Your task to perform on an android device: empty trash in the gmail app Image 0: 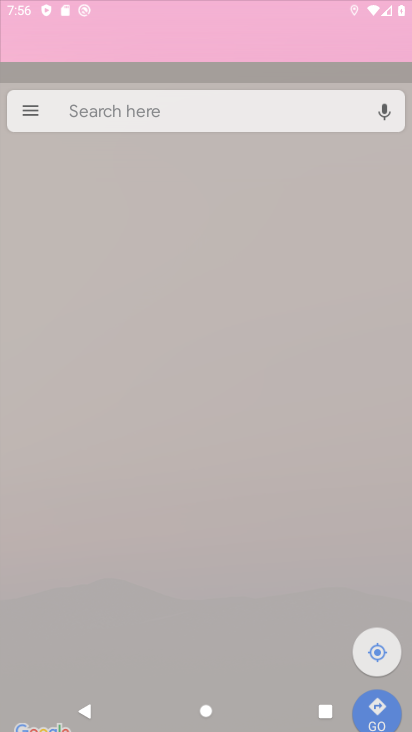
Step 0: click (77, 122)
Your task to perform on an android device: empty trash in the gmail app Image 1: 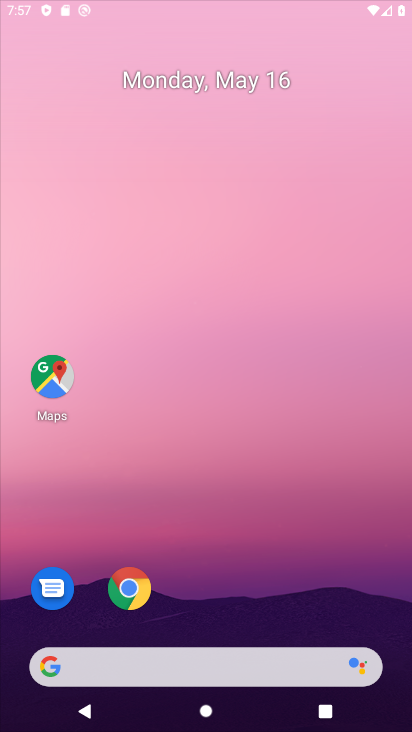
Step 1: drag from (261, 646) to (89, 38)
Your task to perform on an android device: empty trash in the gmail app Image 2: 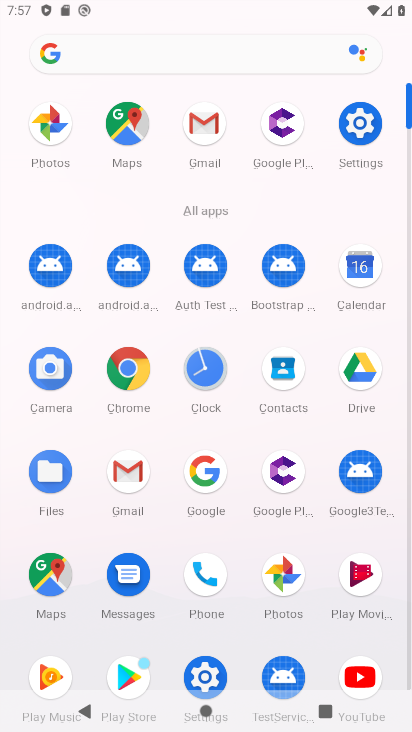
Step 2: click (125, 469)
Your task to perform on an android device: empty trash in the gmail app Image 3: 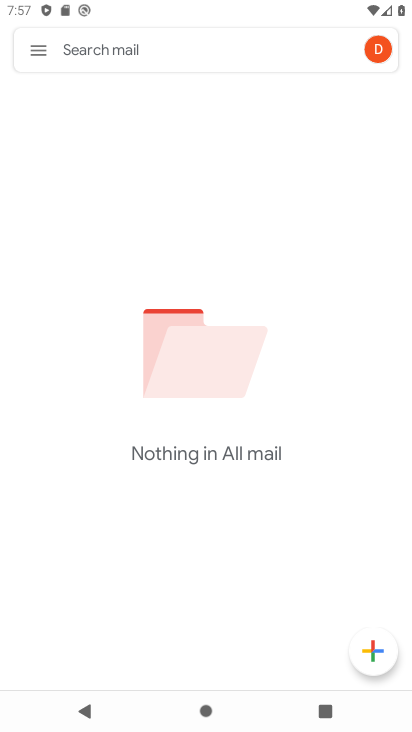
Step 3: click (38, 41)
Your task to perform on an android device: empty trash in the gmail app Image 4: 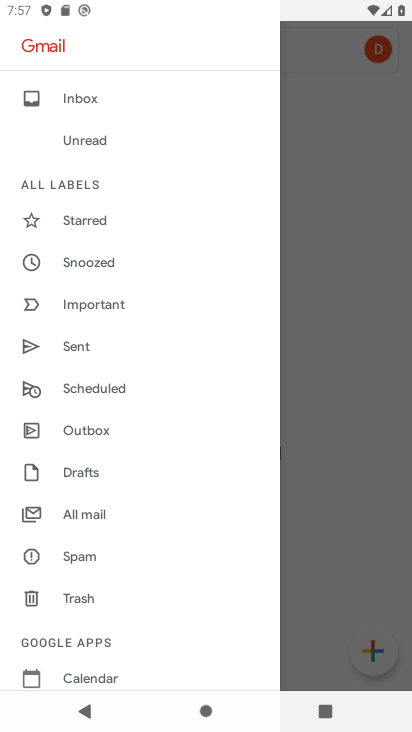
Step 4: click (79, 595)
Your task to perform on an android device: empty trash in the gmail app Image 5: 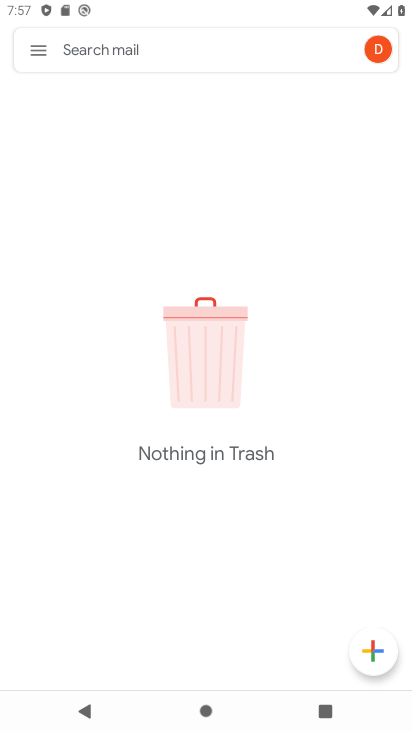
Step 5: task complete